Your task to perform on an android device: move an email to a new category in the gmail app Image 0: 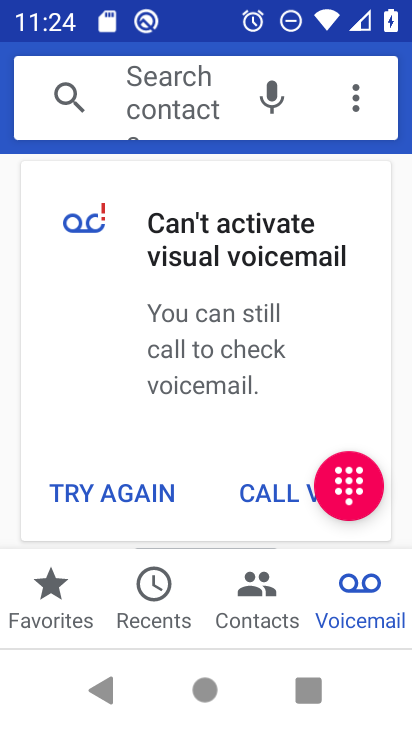
Step 0: press home button
Your task to perform on an android device: move an email to a new category in the gmail app Image 1: 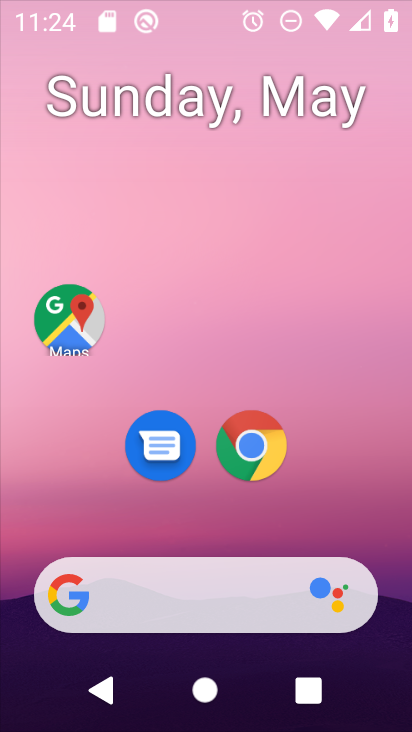
Step 1: drag from (196, 646) to (237, 208)
Your task to perform on an android device: move an email to a new category in the gmail app Image 2: 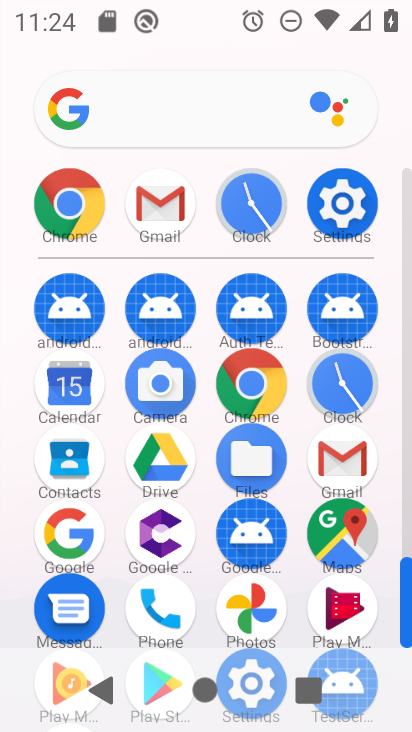
Step 2: click (343, 468)
Your task to perform on an android device: move an email to a new category in the gmail app Image 3: 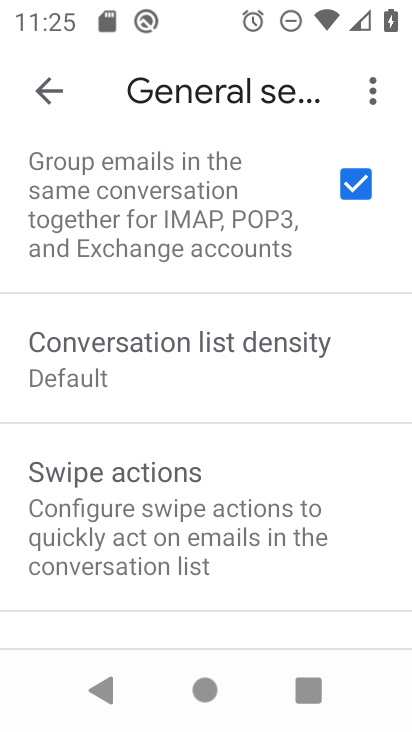
Step 3: click (31, 89)
Your task to perform on an android device: move an email to a new category in the gmail app Image 4: 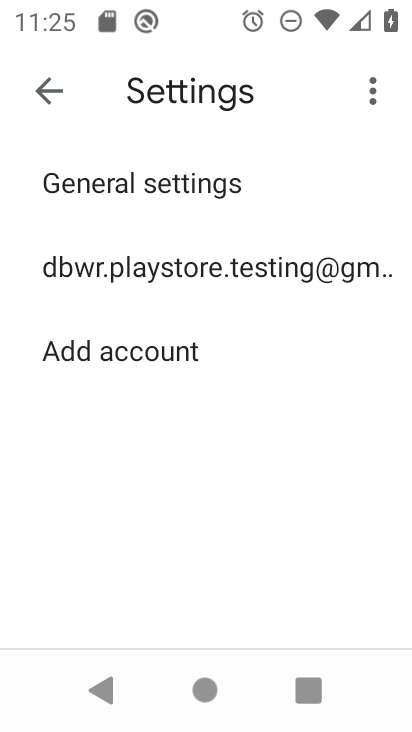
Step 4: click (54, 81)
Your task to perform on an android device: move an email to a new category in the gmail app Image 5: 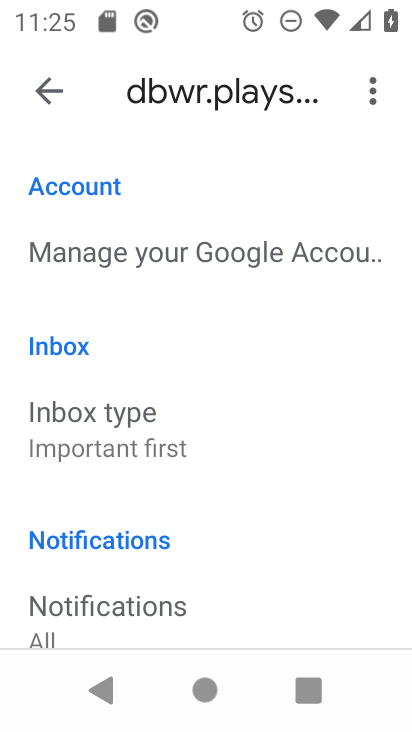
Step 5: click (46, 100)
Your task to perform on an android device: move an email to a new category in the gmail app Image 6: 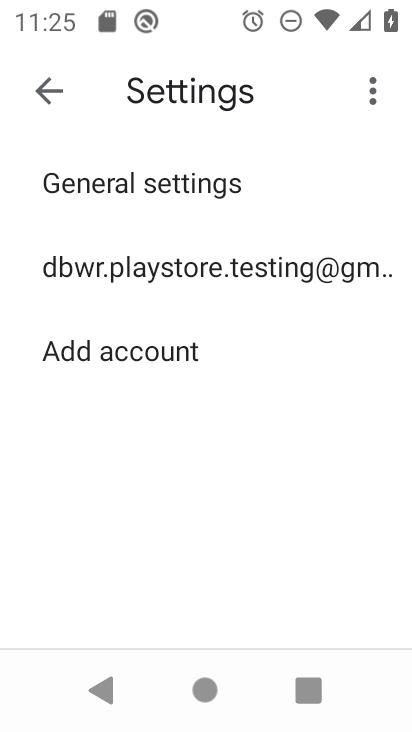
Step 6: click (46, 100)
Your task to perform on an android device: move an email to a new category in the gmail app Image 7: 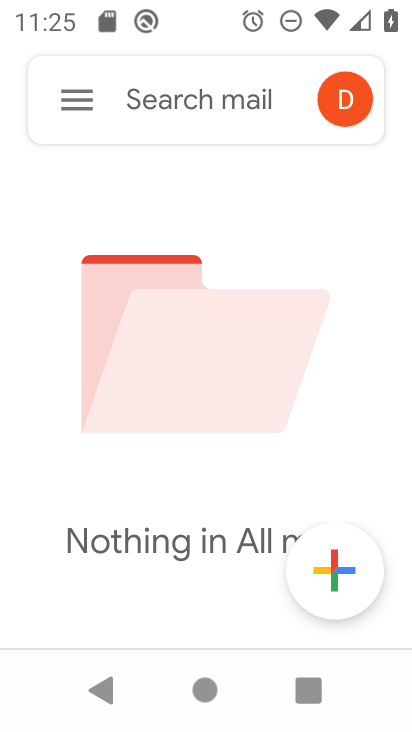
Step 7: click (93, 107)
Your task to perform on an android device: move an email to a new category in the gmail app Image 8: 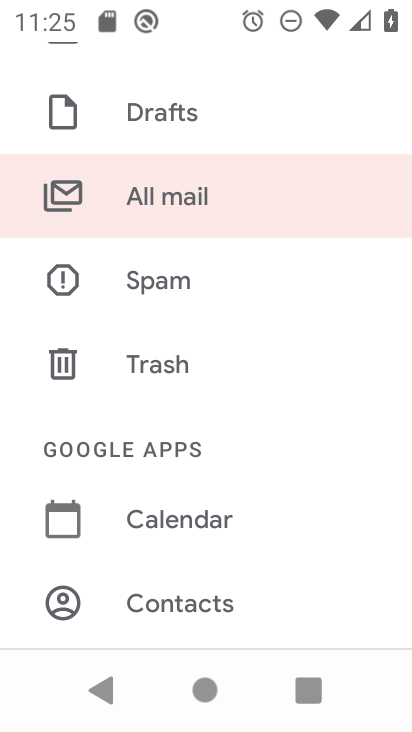
Step 8: click (196, 201)
Your task to perform on an android device: move an email to a new category in the gmail app Image 9: 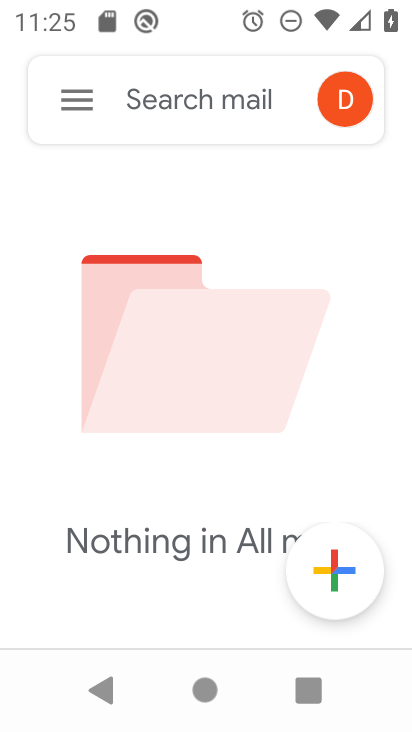
Step 9: task complete